Your task to perform on an android device: turn on notifications settings in the gmail app Image 0: 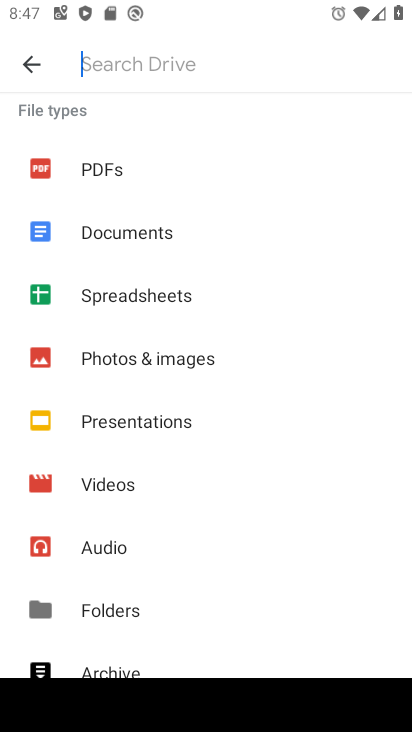
Step 0: press home button
Your task to perform on an android device: turn on notifications settings in the gmail app Image 1: 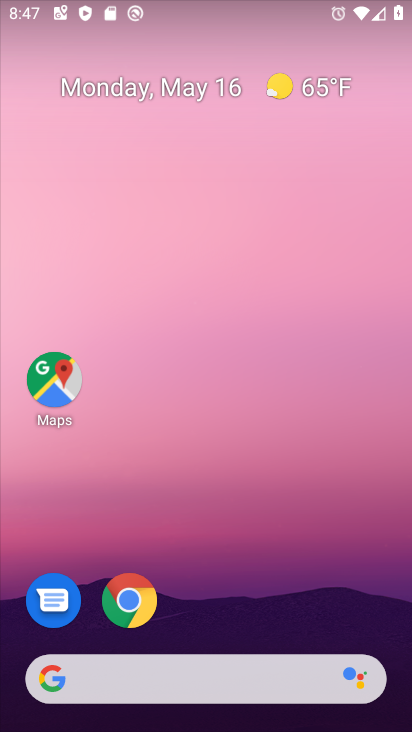
Step 1: drag from (236, 618) to (273, 51)
Your task to perform on an android device: turn on notifications settings in the gmail app Image 2: 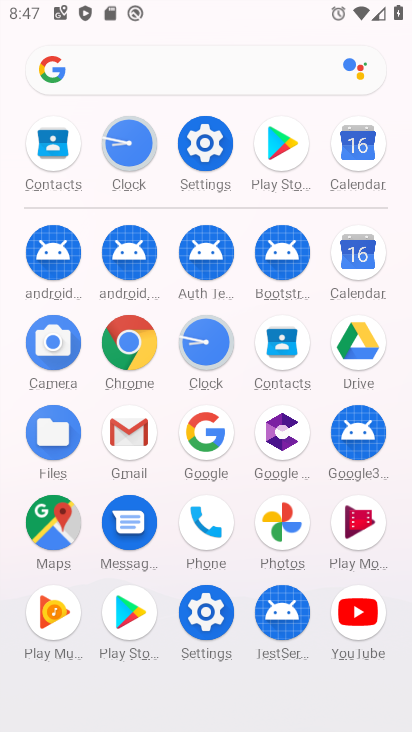
Step 2: click (127, 432)
Your task to perform on an android device: turn on notifications settings in the gmail app Image 3: 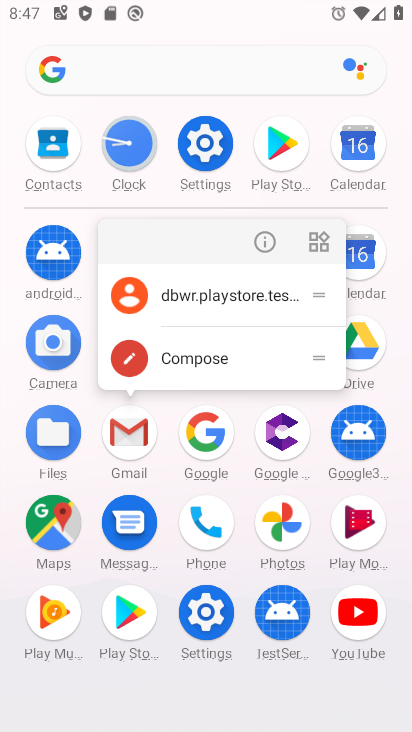
Step 3: click (271, 237)
Your task to perform on an android device: turn on notifications settings in the gmail app Image 4: 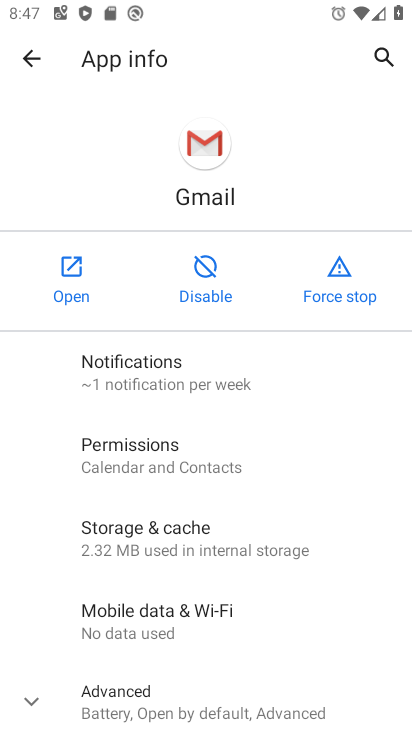
Step 4: click (78, 270)
Your task to perform on an android device: turn on notifications settings in the gmail app Image 5: 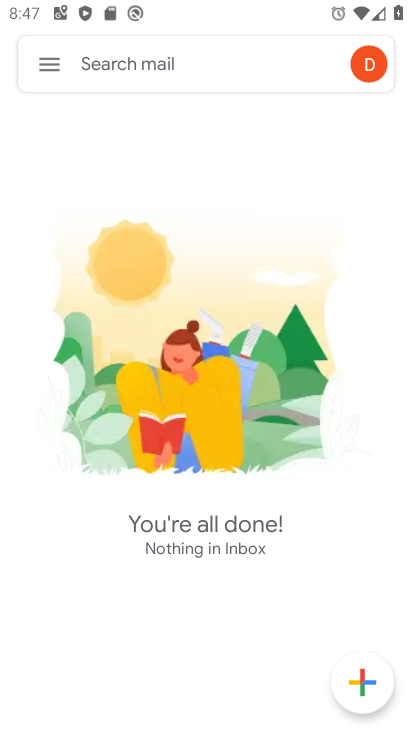
Step 5: click (57, 67)
Your task to perform on an android device: turn on notifications settings in the gmail app Image 6: 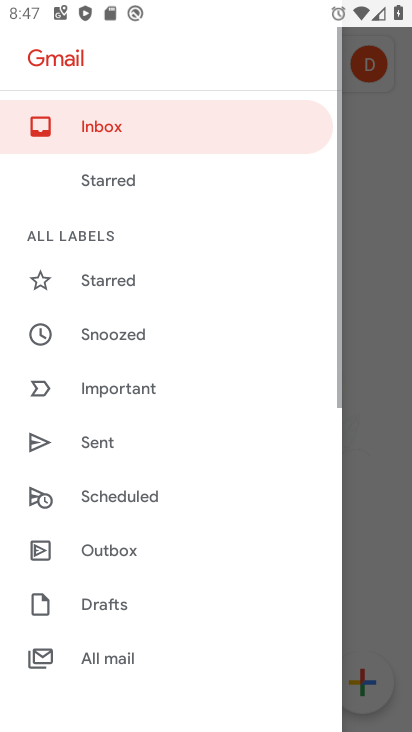
Step 6: drag from (107, 630) to (192, 35)
Your task to perform on an android device: turn on notifications settings in the gmail app Image 7: 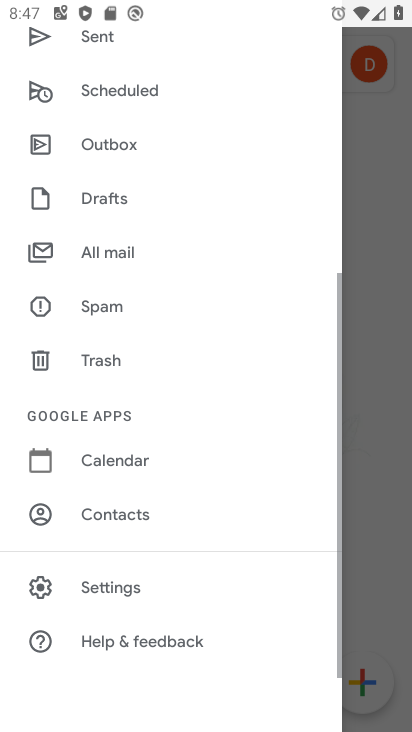
Step 7: click (101, 587)
Your task to perform on an android device: turn on notifications settings in the gmail app Image 8: 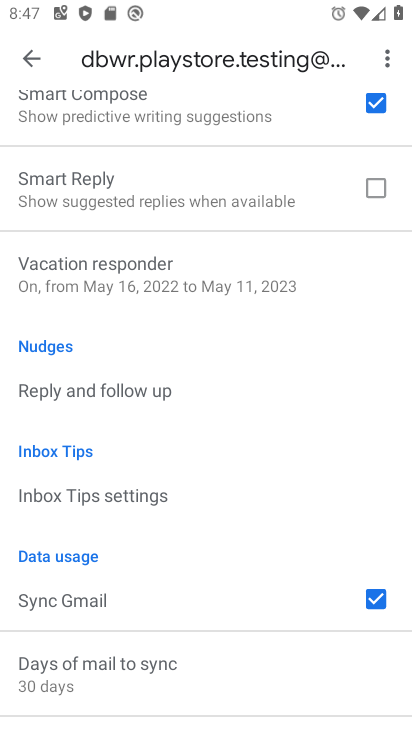
Step 8: drag from (171, 162) to (211, 726)
Your task to perform on an android device: turn on notifications settings in the gmail app Image 9: 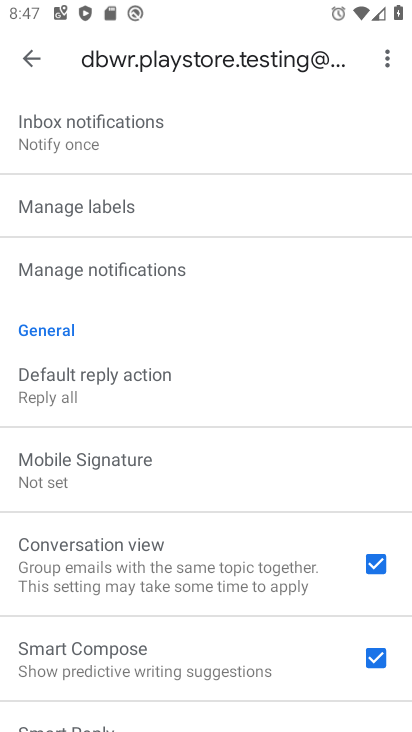
Step 9: click (177, 271)
Your task to perform on an android device: turn on notifications settings in the gmail app Image 10: 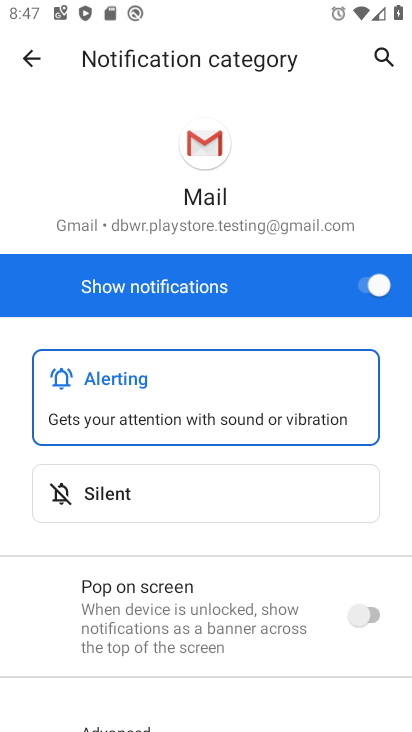
Step 10: task complete